Your task to perform on an android device: change the clock display to digital Image 0: 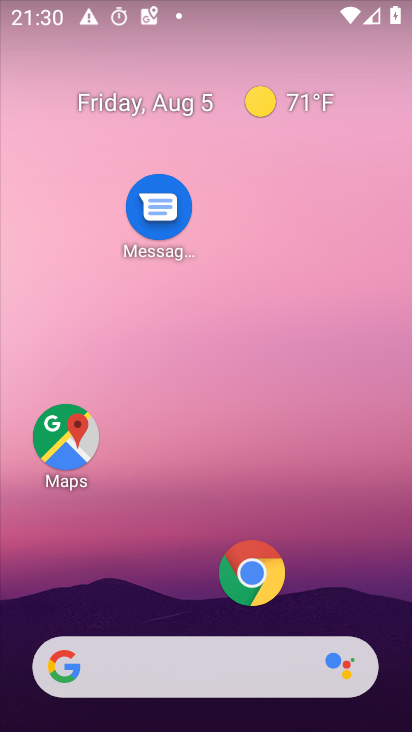
Step 0: drag from (187, 595) to (217, 54)
Your task to perform on an android device: change the clock display to digital Image 1: 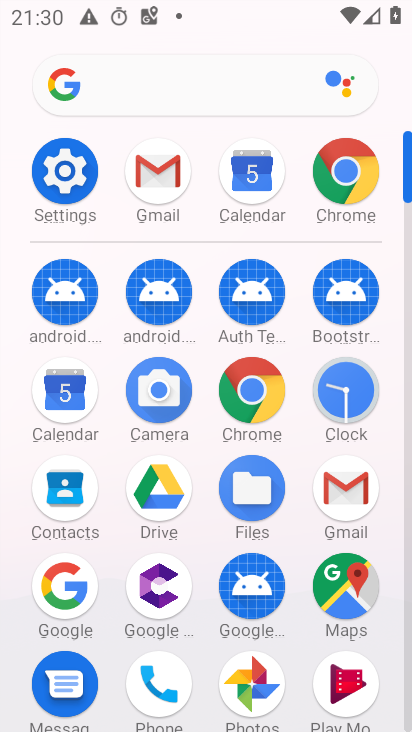
Step 1: click (349, 375)
Your task to perform on an android device: change the clock display to digital Image 2: 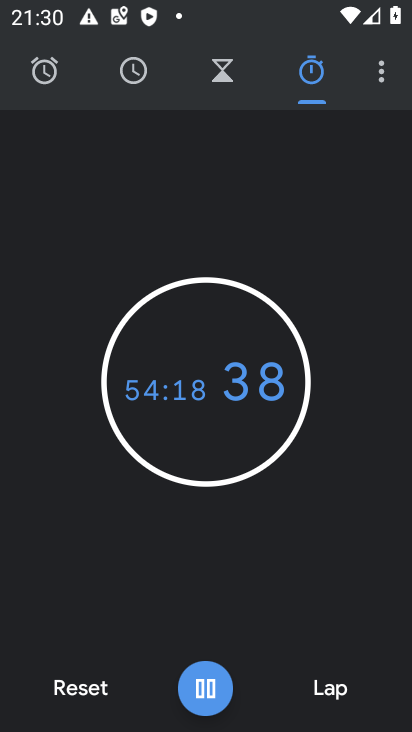
Step 2: click (371, 70)
Your task to perform on an android device: change the clock display to digital Image 3: 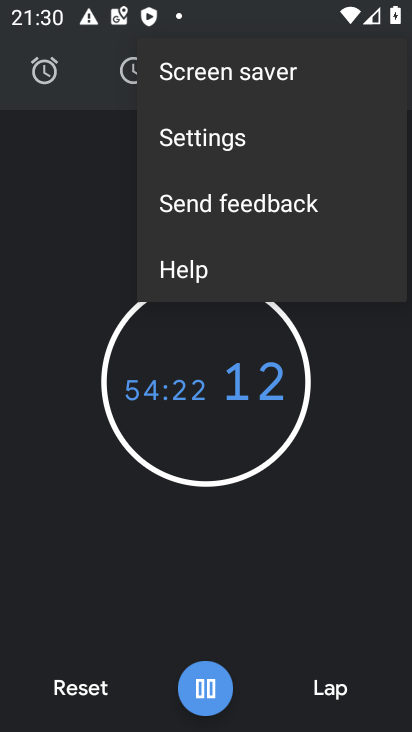
Step 3: click (275, 133)
Your task to perform on an android device: change the clock display to digital Image 4: 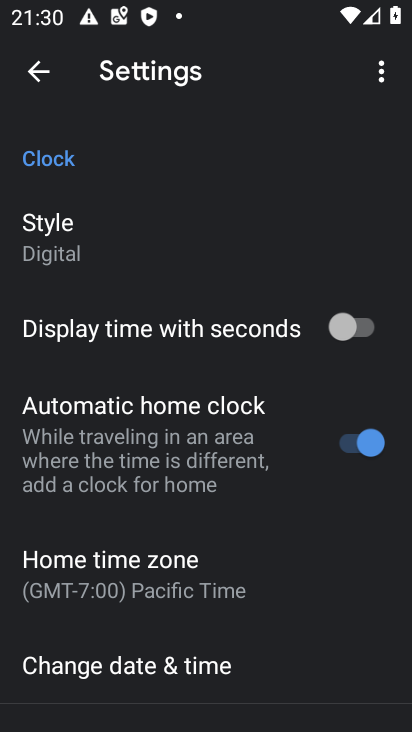
Step 4: click (176, 226)
Your task to perform on an android device: change the clock display to digital Image 5: 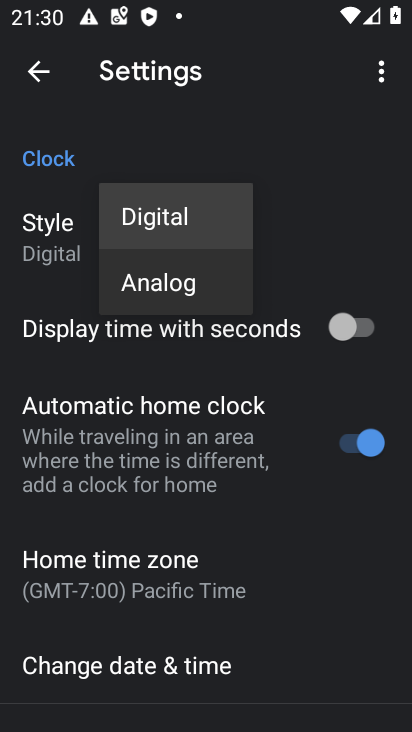
Step 5: click (153, 235)
Your task to perform on an android device: change the clock display to digital Image 6: 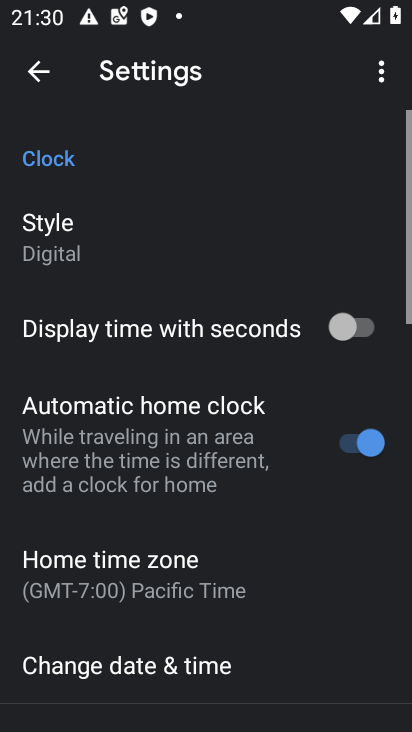
Step 6: task complete